Your task to perform on an android device: open a new tab in the chrome app Image 0: 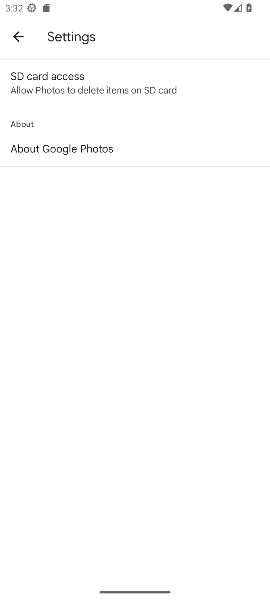
Step 0: press home button
Your task to perform on an android device: open a new tab in the chrome app Image 1: 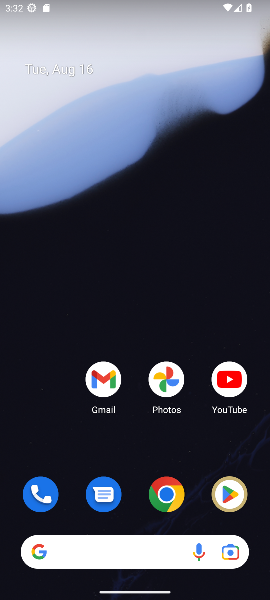
Step 1: click (182, 505)
Your task to perform on an android device: open a new tab in the chrome app Image 2: 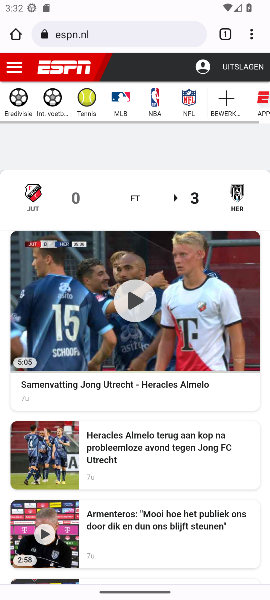
Step 2: click (220, 28)
Your task to perform on an android device: open a new tab in the chrome app Image 3: 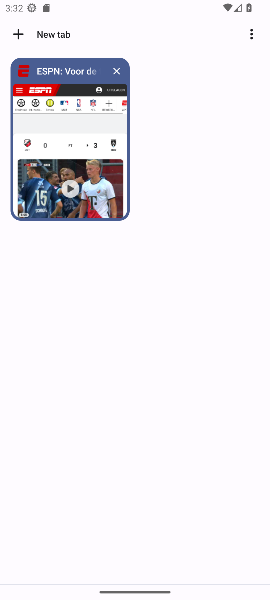
Step 3: click (9, 29)
Your task to perform on an android device: open a new tab in the chrome app Image 4: 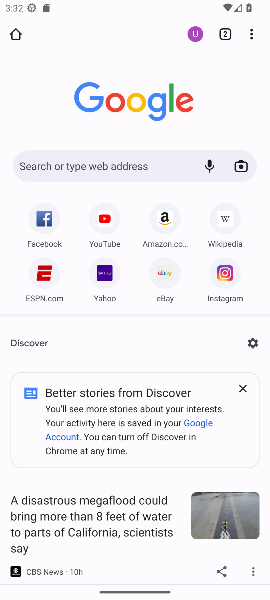
Step 4: task complete